Your task to perform on an android device: Open Yahoo.com Image 0: 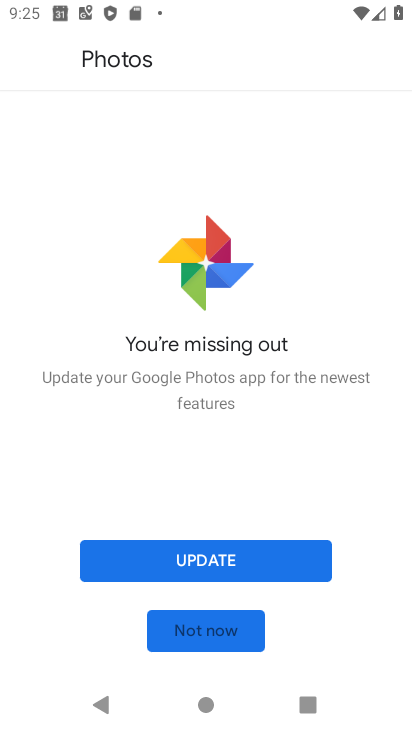
Step 0: press home button
Your task to perform on an android device: Open Yahoo.com Image 1: 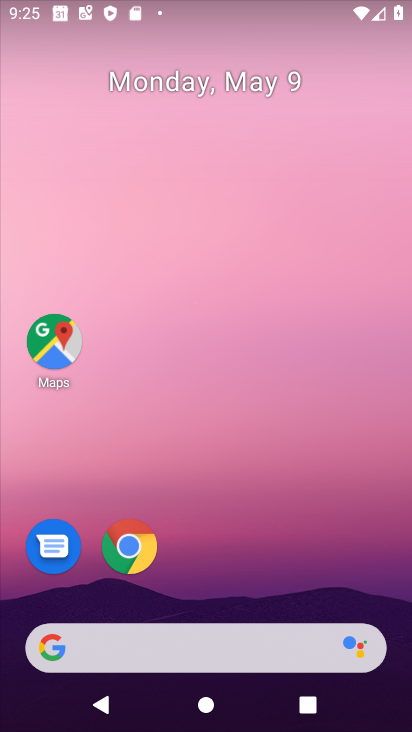
Step 1: click (246, 636)
Your task to perform on an android device: Open Yahoo.com Image 2: 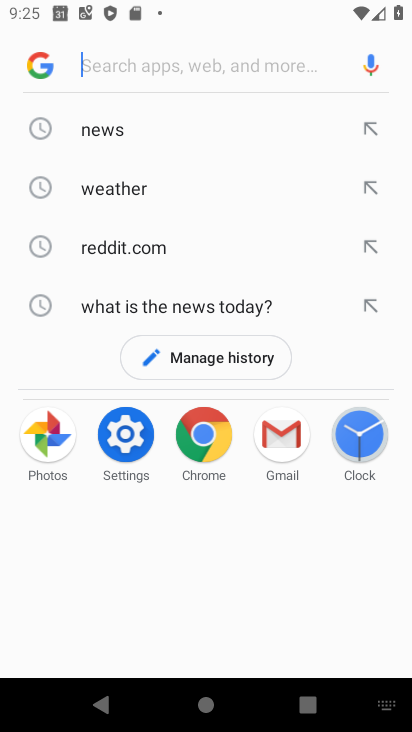
Step 2: type "yahoo.com"
Your task to perform on an android device: Open Yahoo.com Image 3: 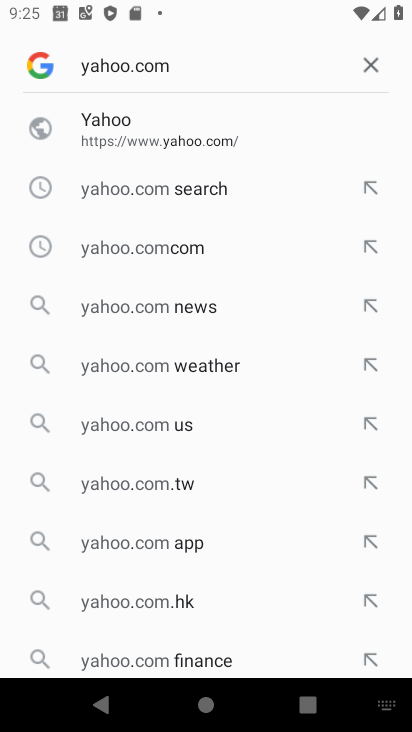
Step 3: click (207, 137)
Your task to perform on an android device: Open Yahoo.com Image 4: 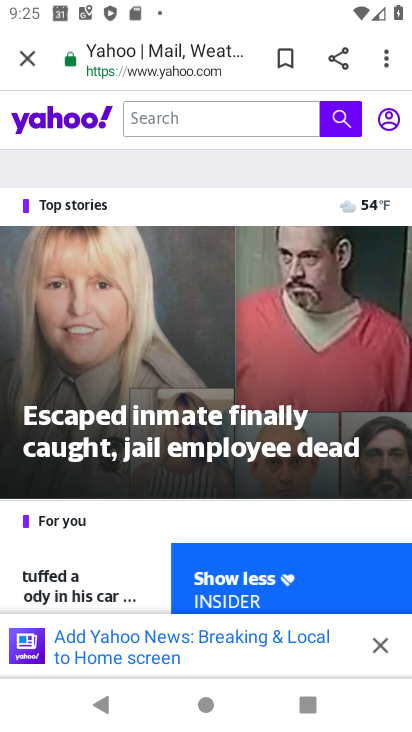
Step 4: task complete